Your task to perform on an android device: Turn off the flashlight Image 0: 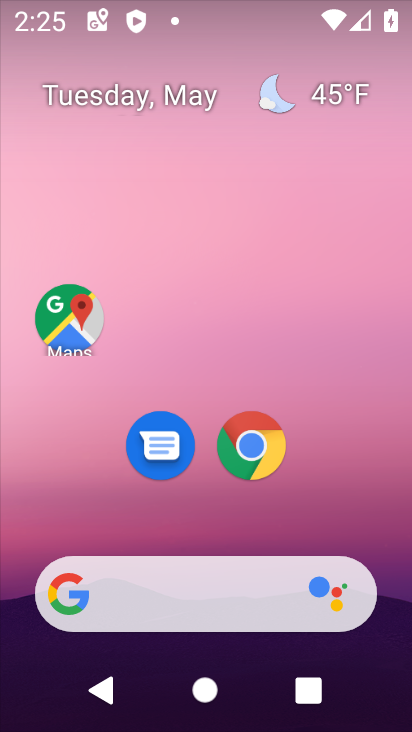
Step 0: drag from (213, 530) to (211, 122)
Your task to perform on an android device: Turn off the flashlight Image 1: 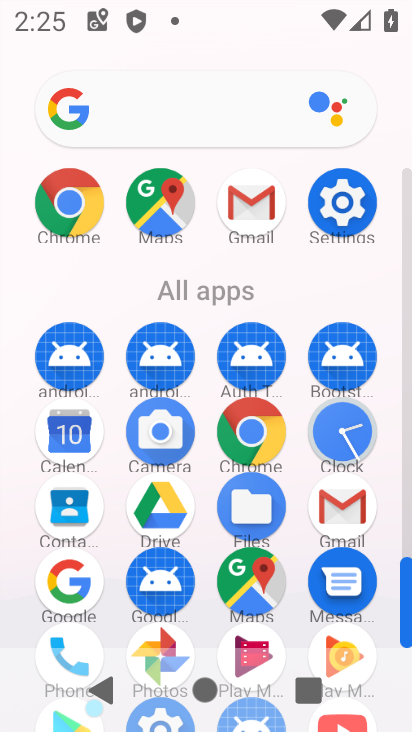
Step 1: click (356, 200)
Your task to perform on an android device: Turn off the flashlight Image 2: 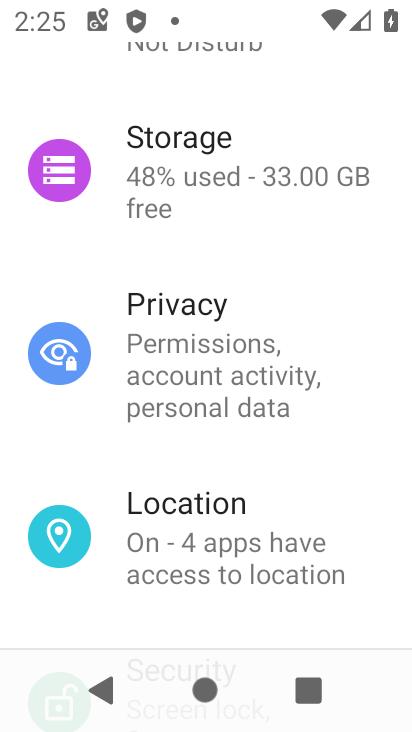
Step 2: task complete